Your task to perform on an android device: What's the weather going to be this weekend? Image 0: 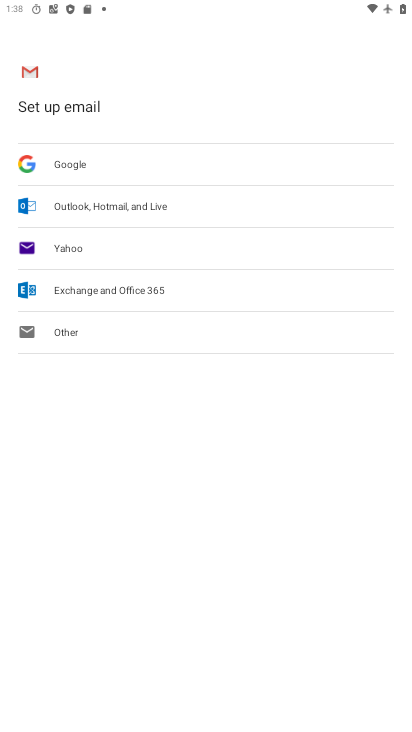
Step 0: press home button
Your task to perform on an android device: What's the weather going to be this weekend? Image 1: 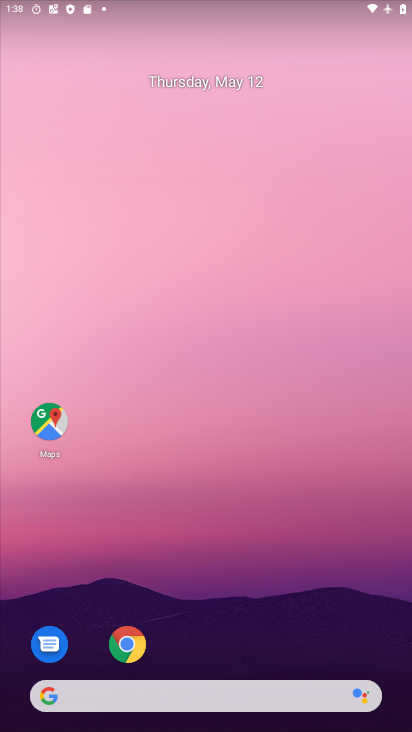
Step 1: drag from (210, 509) to (154, 62)
Your task to perform on an android device: What's the weather going to be this weekend? Image 2: 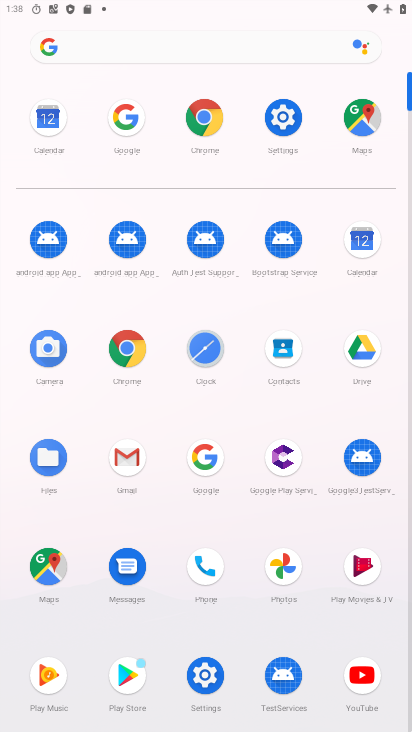
Step 2: click (206, 454)
Your task to perform on an android device: What's the weather going to be this weekend? Image 3: 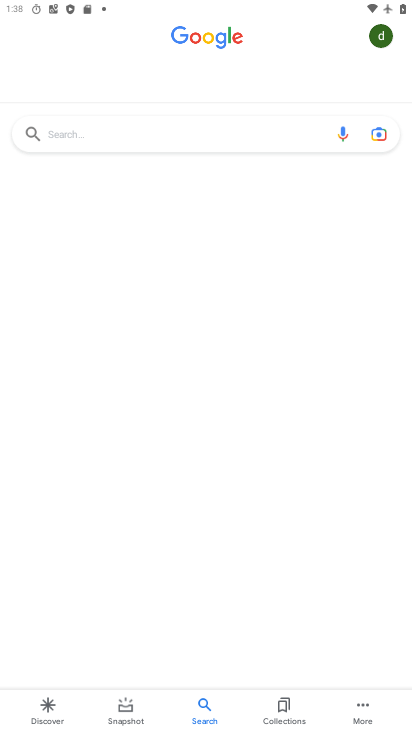
Step 3: click (125, 132)
Your task to perform on an android device: What's the weather going to be this weekend? Image 4: 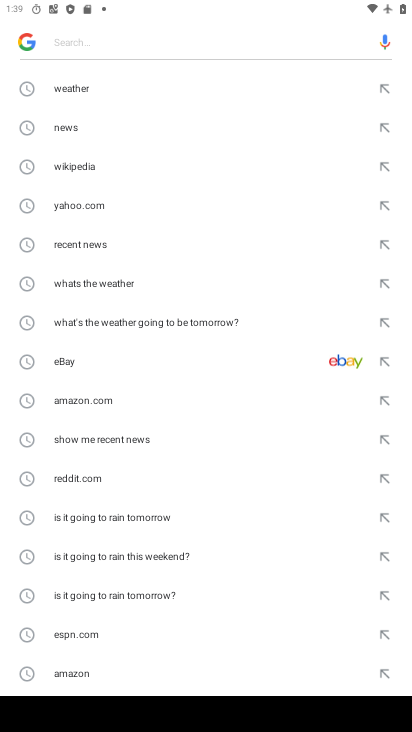
Step 4: type "what's the weather going to be this weekend?"
Your task to perform on an android device: What's the weather going to be this weekend? Image 5: 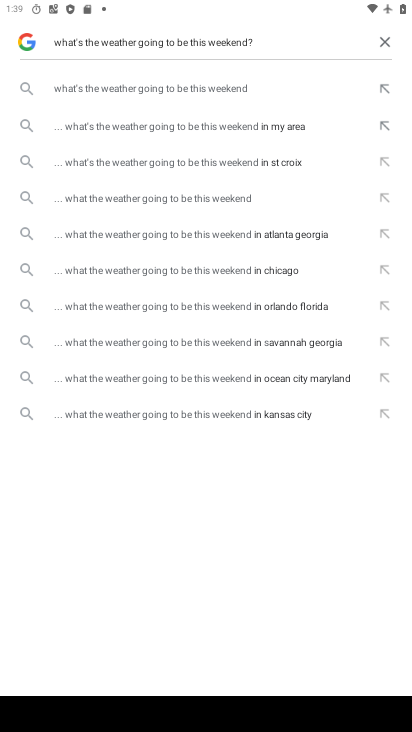
Step 5: click (221, 93)
Your task to perform on an android device: What's the weather going to be this weekend? Image 6: 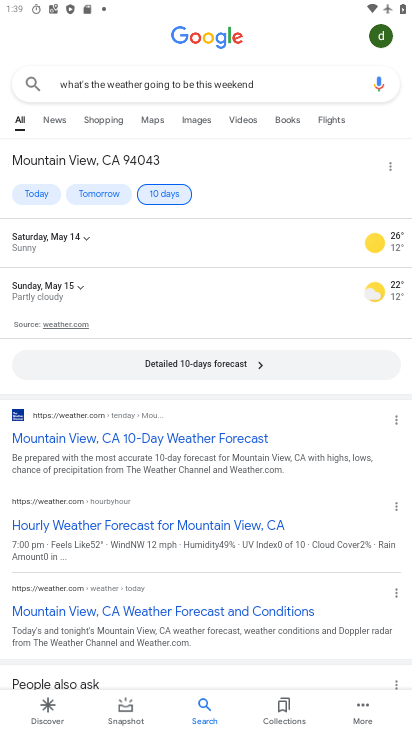
Step 6: click (218, 362)
Your task to perform on an android device: What's the weather going to be this weekend? Image 7: 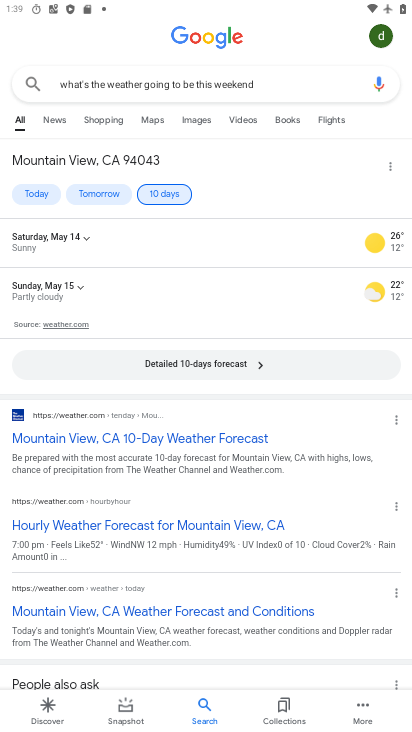
Step 7: click (261, 365)
Your task to perform on an android device: What's the weather going to be this weekend? Image 8: 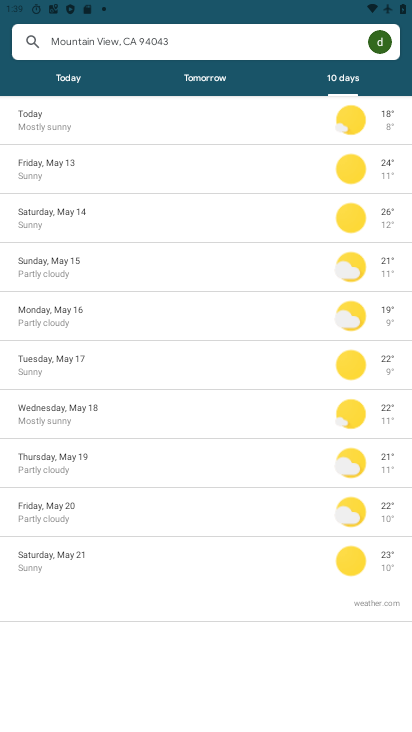
Step 8: task complete